Your task to perform on an android device: turn pop-ups off in chrome Image 0: 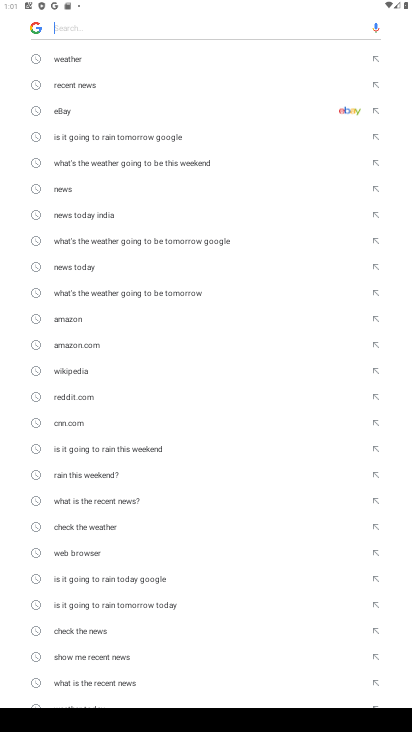
Step 0: press home button
Your task to perform on an android device: turn pop-ups off in chrome Image 1: 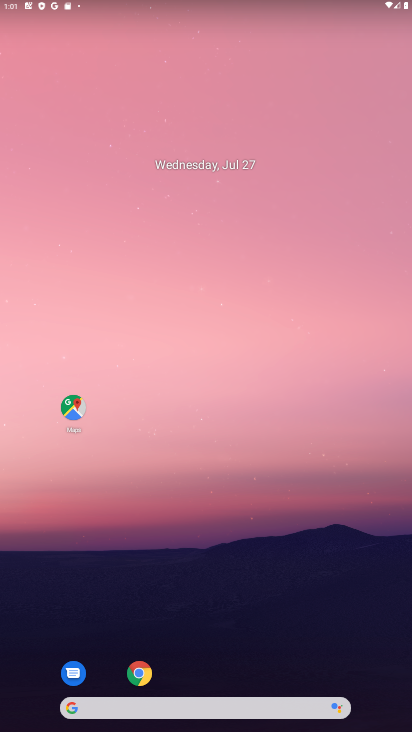
Step 1: click (144, 678)
Your task to perform on an android device: turn pop-ups off in chrome Image 2: 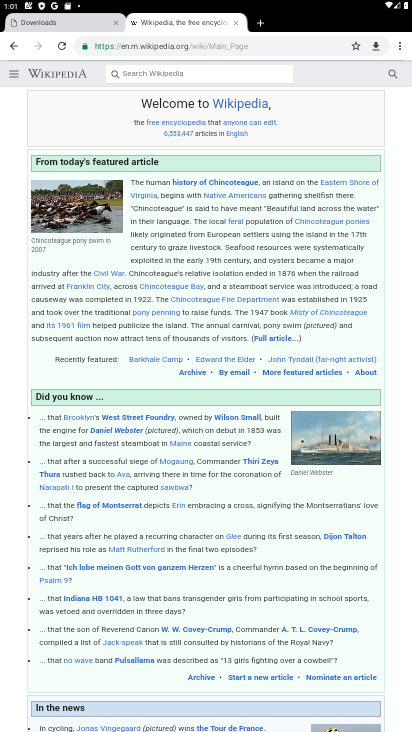
Step 2: click (400, 45)
Your task to perform on an android device: turn pop-ups off in chrome Image 3: 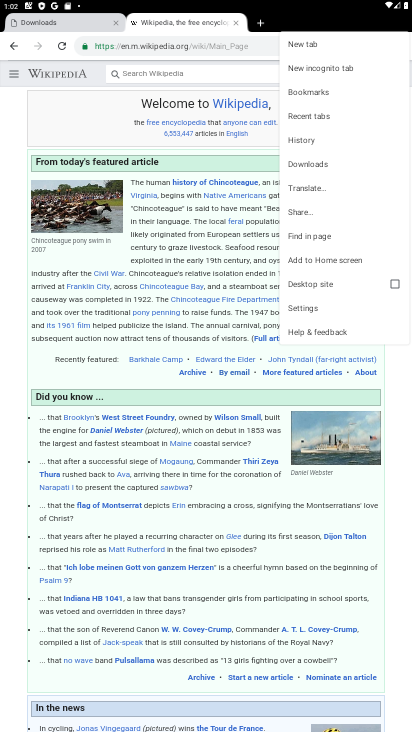
Step 3: click (322, 313)
Your task to perform on an android device: turn pop-ups off in chrome Image 4: 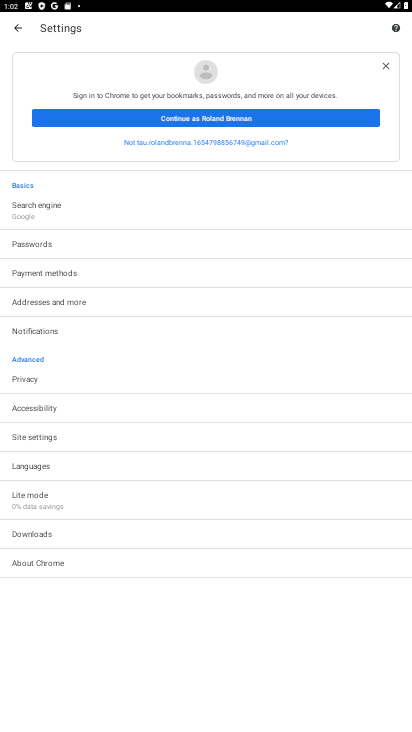
Step 4: click (43, 446)
Your task to perform on an android device: turn pop-ups off in chrome Image 5: 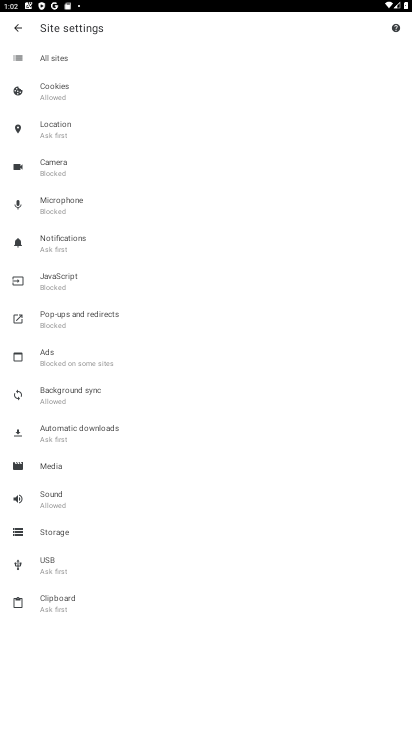
Step 5: click (53, 323)
Your task to perform on an android device: turn pop-ups off in chrome Image 6: 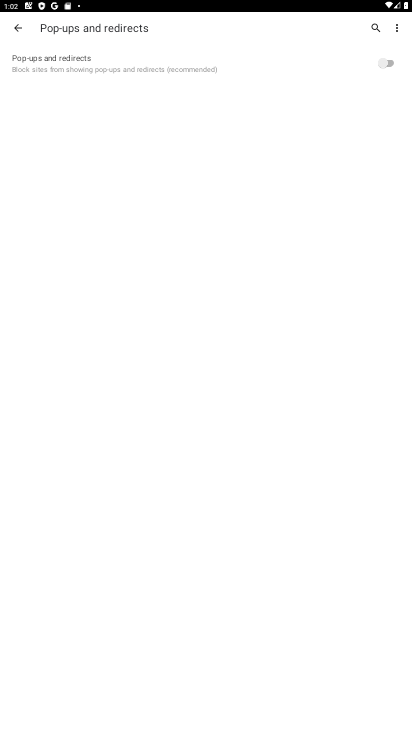
Step 6: task complete